Your task to perform on an android device: Search for Italian restaurants on Maps Image 0: 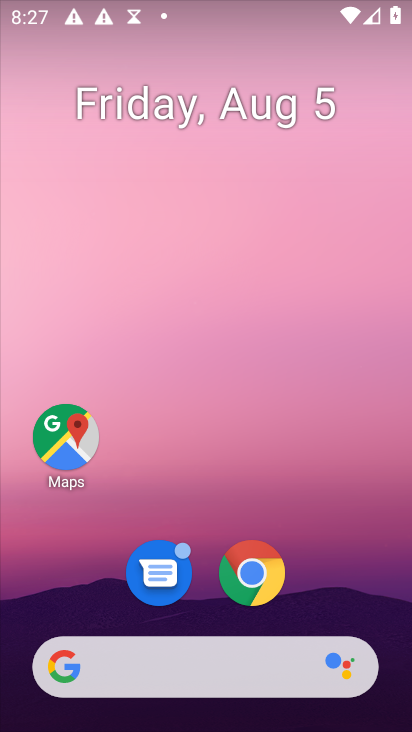
Step 0: click (63, 442)
Your task to perform on an android device: Search for Italian restaurants on Maps Image 1: 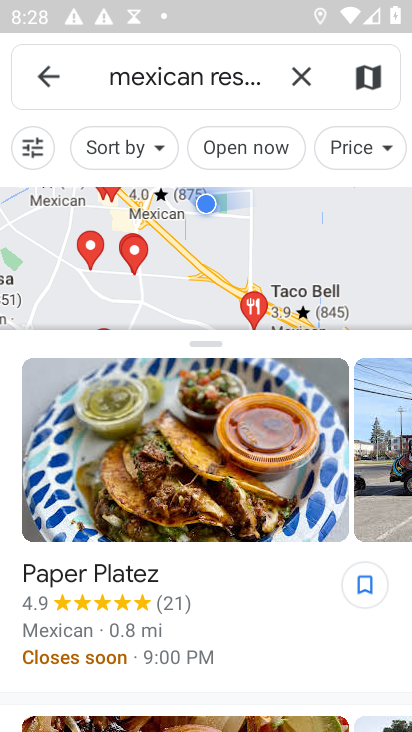
Step 1: click (302, 89)
Your task to perform on an android device: Search for Italian restaurants on Maps Image 2: 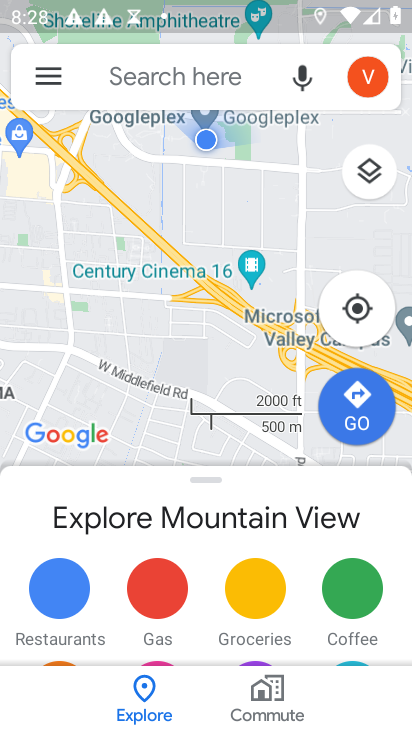
Step 2: click (174, 81)
Your task to perform on an android device: Search for Italian restaurants on Maps Image 3: 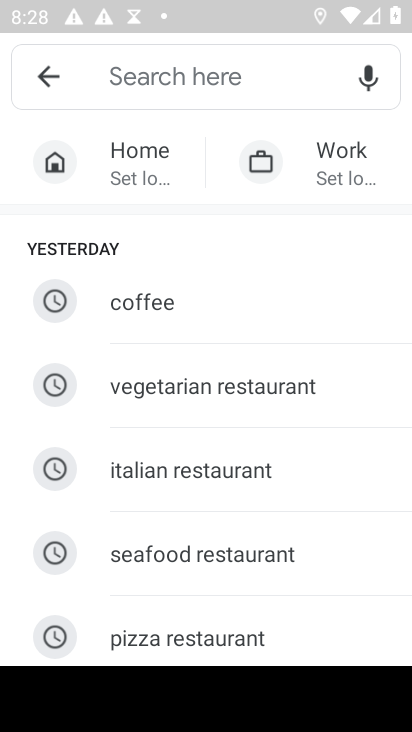
Step 3: type "Italian restaurants"
Your task to perform on an android device: Search for Italian restaurants on Maps Image 4: 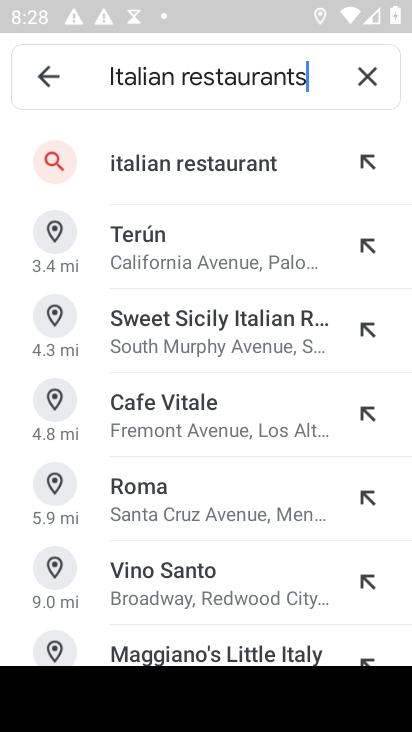
Step 4: click (248, 170)
Your task to perform on an android device: Search for Italian restaurants on Maps Image 5: 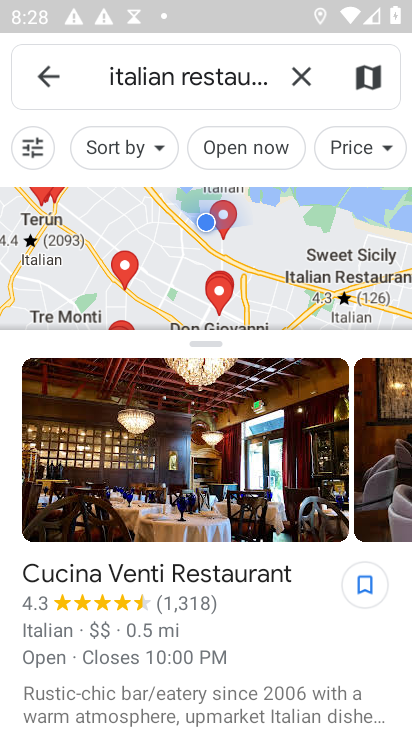
Step 5: drag from (259, 615) to (280, 417)
Your task to perform on an android device: Search for Italian restaurants on Maps Image 6: 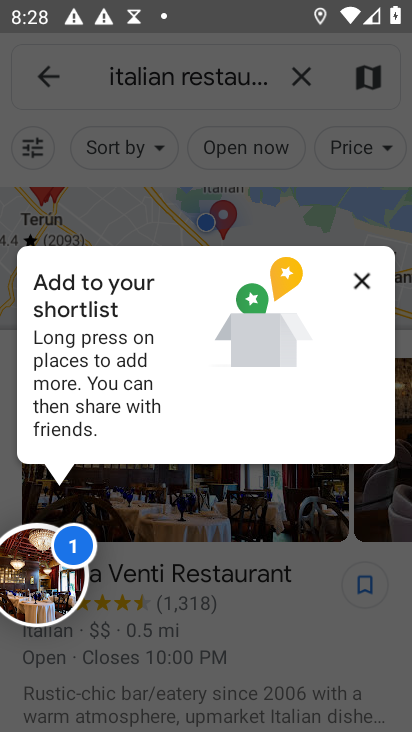
Step 6: click (362, 275)
Your task to perform on an android device: Search for Italian restaurants on Maps Image 7: 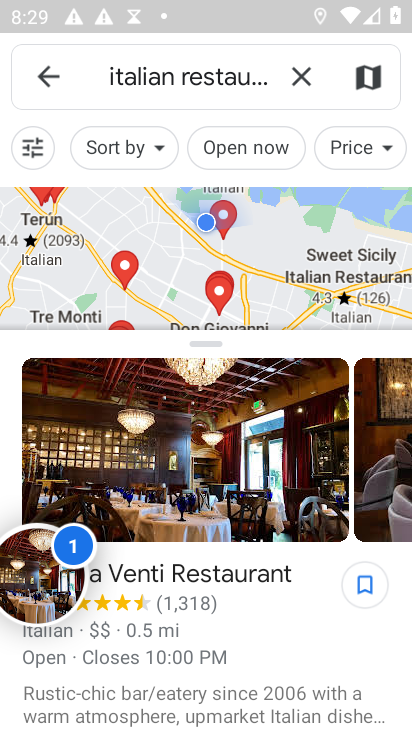
Step 7: task complete